Your task to perform on an android device: Is it going to rain tomorrow? Image 0: 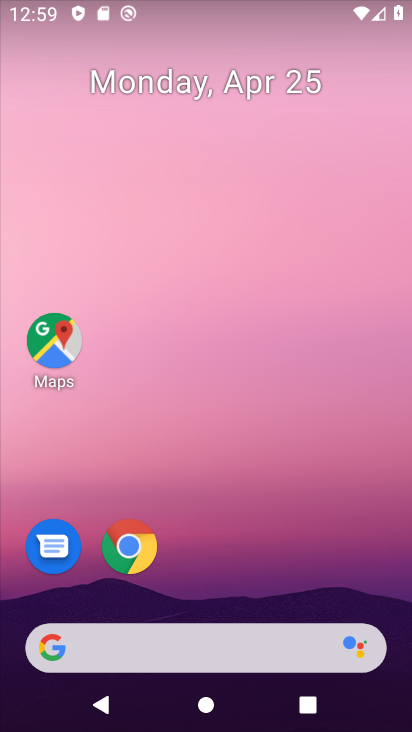
Step 0: click (190, 650)
Your task to perform on an android device: Is it going to rain tomorrow? Image 1: 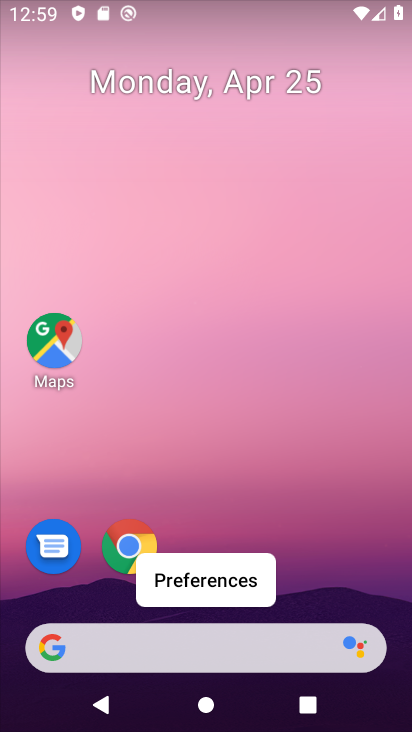
Step 1: click (214, 651)
Your task to perform on an android device: Is it going to rain tomorrow? Image 2: 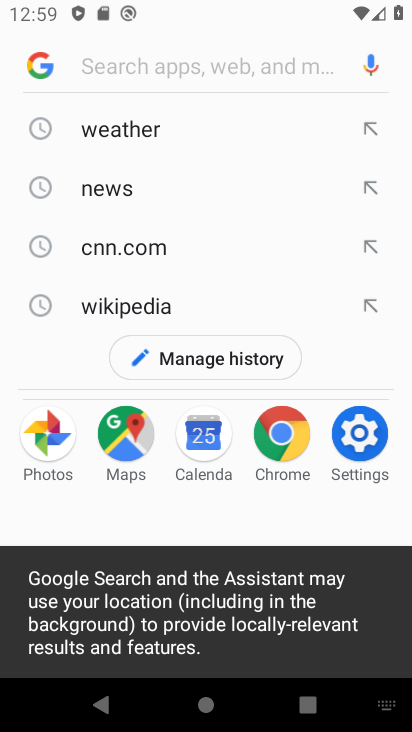
Step 2: click (130, 134)
Your task to perform on an android device: Is it going to rain tomorrow? Image 3: 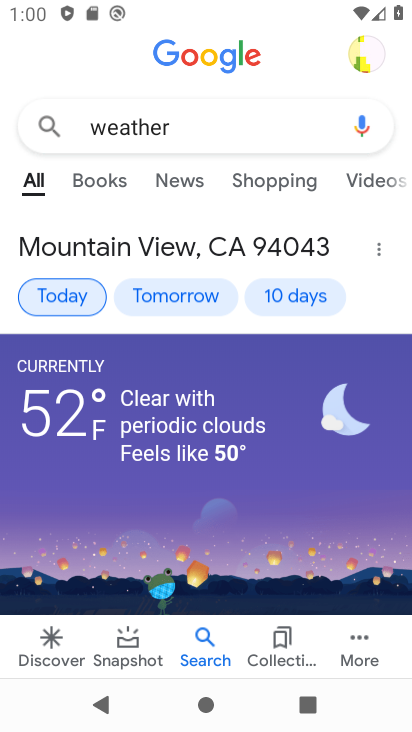
Step 3: click (195, 289)
Your task to perform on an android device: Is it going to rain tomorrow? Image 4: 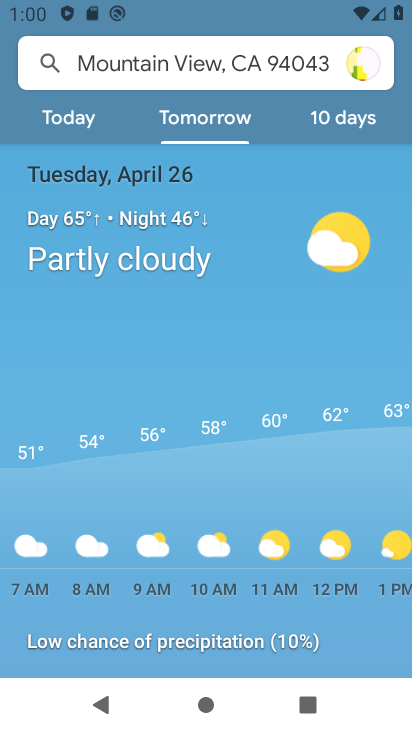
Step 4: task complete